Your task to perform on an android device: turn off location Image 0: 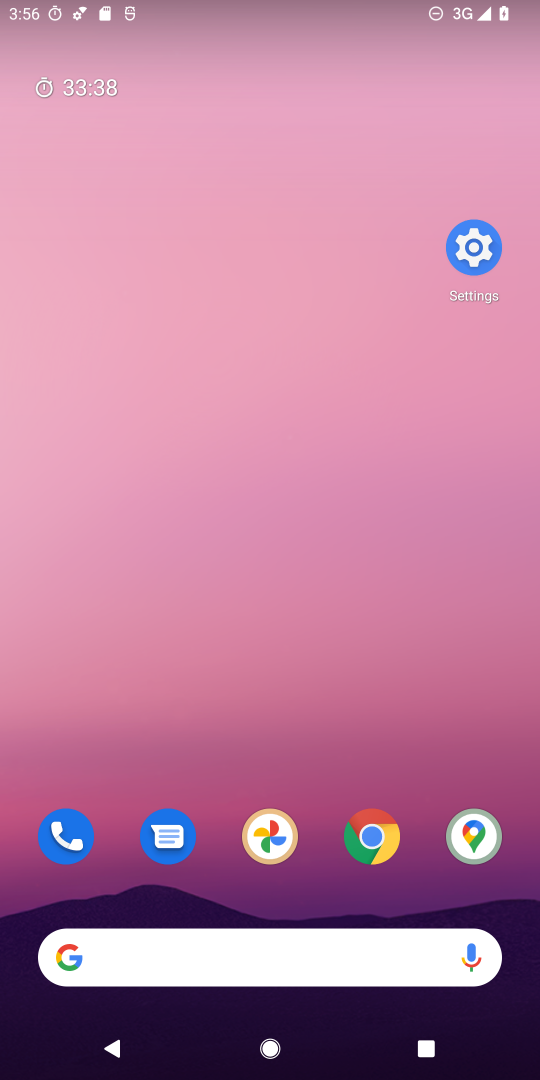
Step 0: drag from (187, 913) to (245, 102)
Your task to perform on an android device: turn off location Image 1: 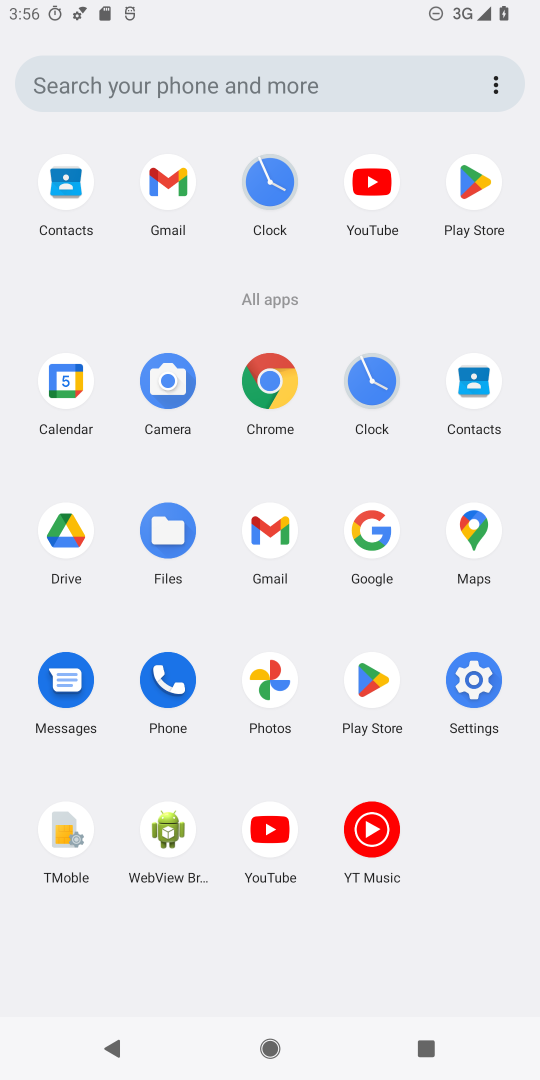
Step 1: click (472, 695)
Your task to perform on an android device: turn off location Image 2: 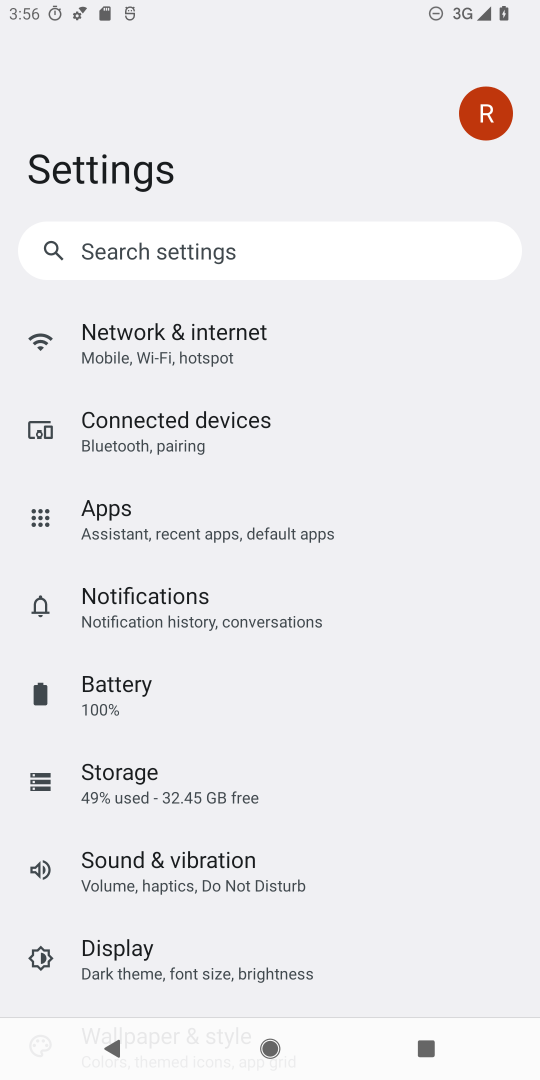
Step 2: drag from (170, 817) to (199, 477)
Your task to perform on an android device: turn off location Image 3: 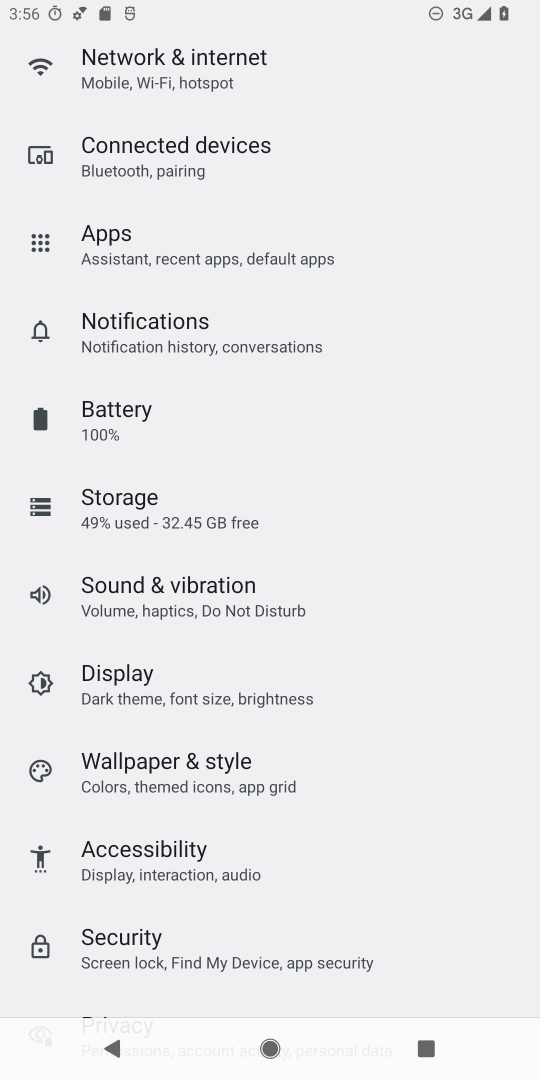
Step 3: drag from (159, 866) to (217, 444)
Your task to perform on an android device: turn off location Image 4: 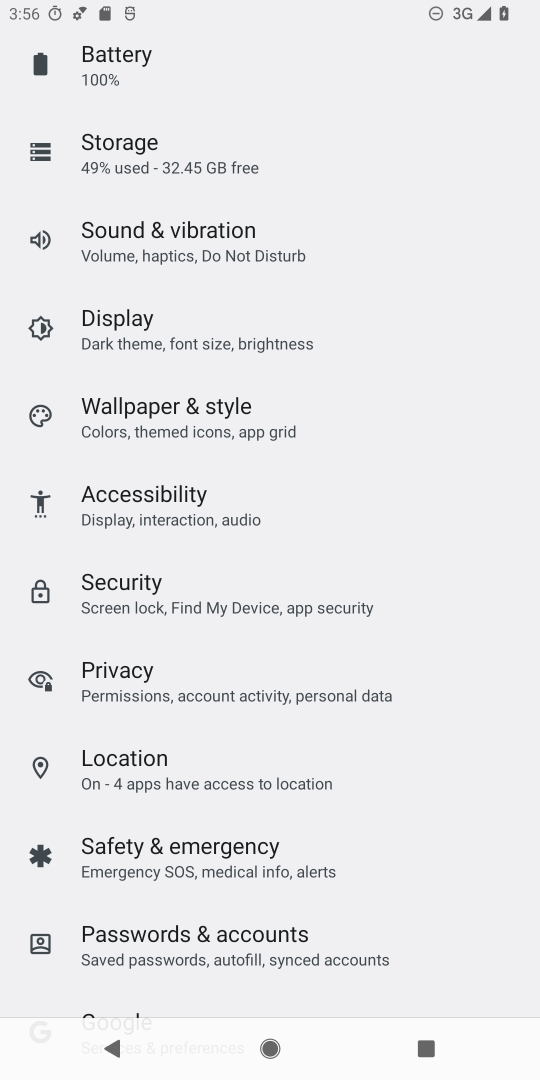
Step 4: click (186, 785)
Your task to perform on an android device: turn off location Image 5: 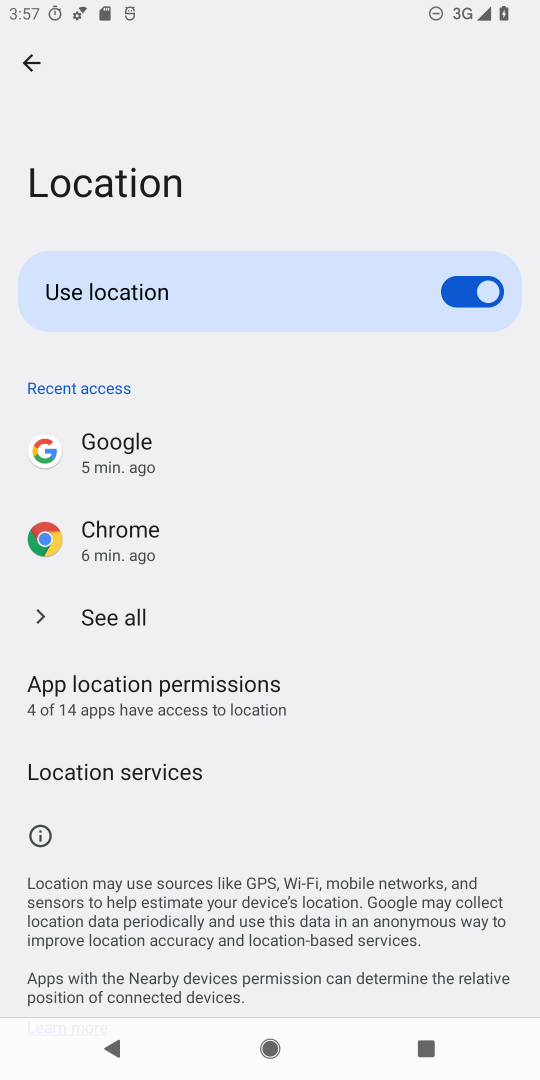
Step 5: click (437, 290)
Your task to perform on an android device: turn off location Image 6: 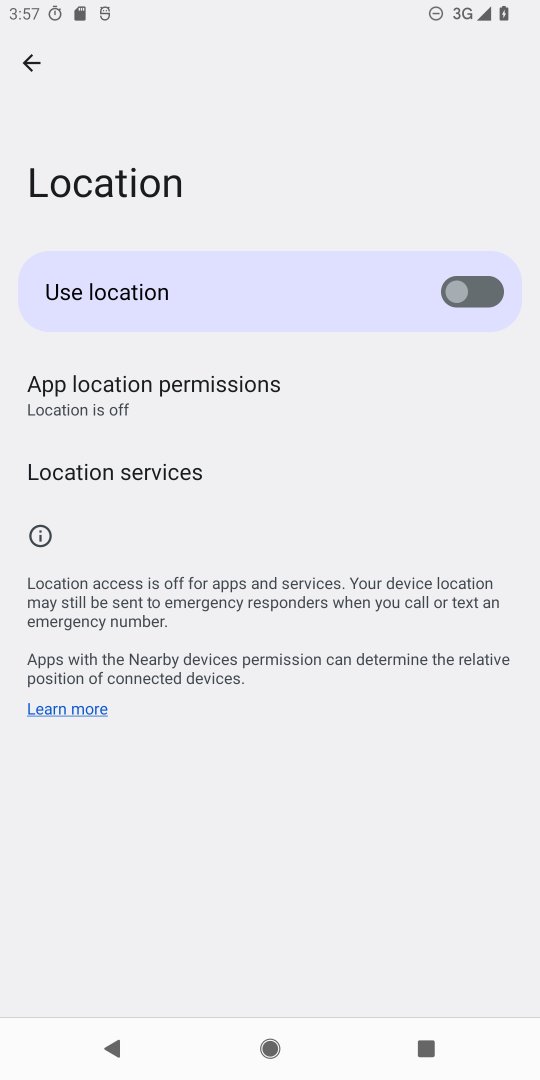
Step 6: task complete